Your task to perform on an android device: change your default location settings in chrome Image 0: 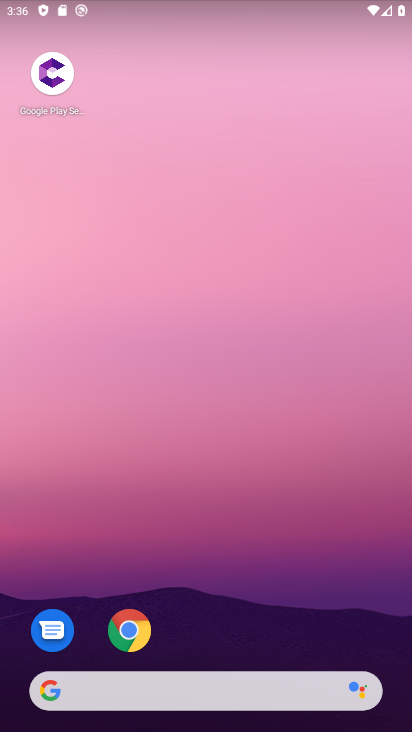
Step 0: drag from (275, 386) to (329, 2)
Your task to perform on an android device: change your default location settings in chrome Image 1: 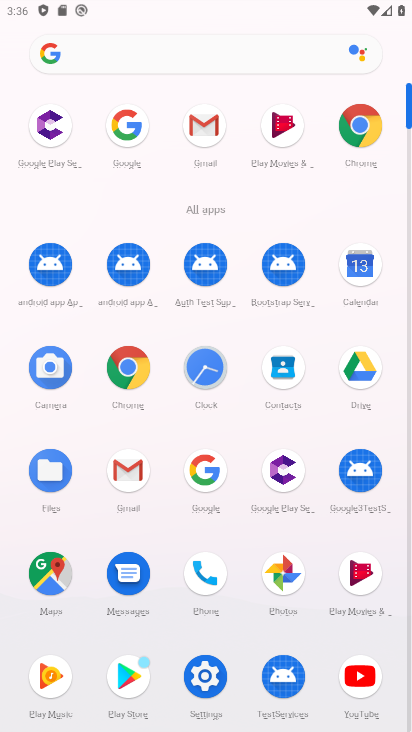
Step 1: click (348, 124)
Your task to perform on an android device: change your default location settings in chrome Image 2: 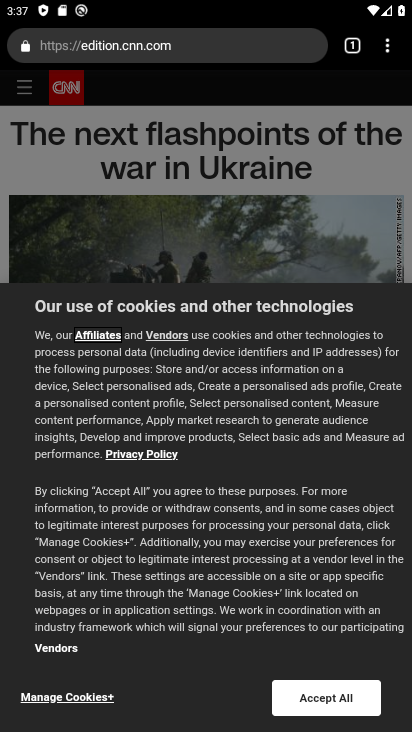
Step 2: drag from (385, 47) to (262, 493)
Your task to perform on an android device: change your default location settings in chrome Image 3: 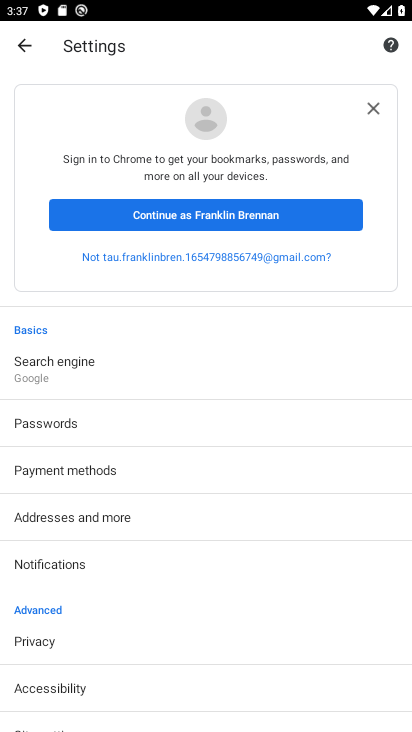
Step 3: drag from (127, 645) to (193, 236)
Your task to perform on an android device: change your default location settings in chrome Image 4: 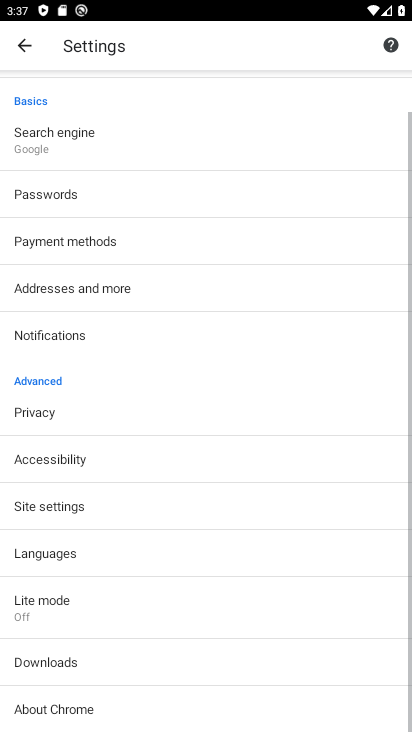
Step 4: click (63, 505)
Your task to perform on an android device: change your default location settings in chrome Image 5: 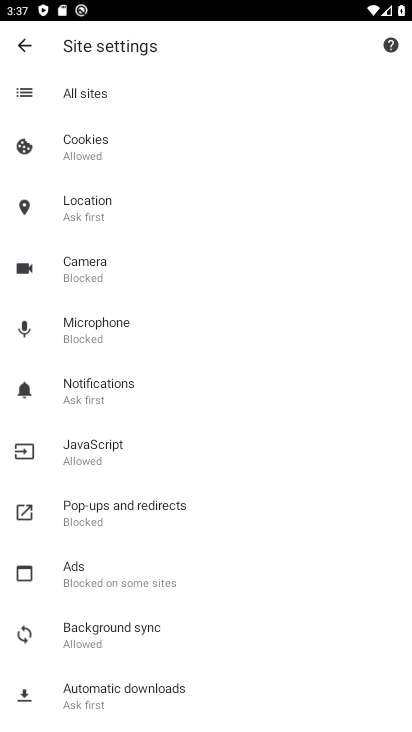
Step 5: drag from (120, 629) to (122, 213)
Your task to perform on an android device: change your default location settings in chrome Image 6: 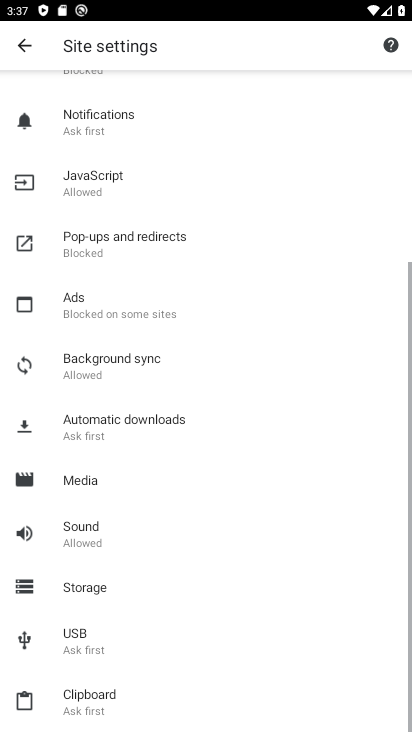
Step 6: drag from (121, 231) to (139, 632)
Your task to perform on an android device: change your default location settings in chrome Image 7: 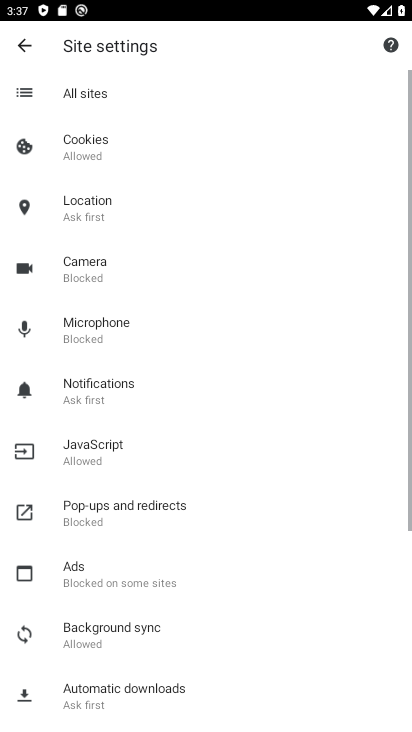
Step 7: click (66, 206)
Your task to perform on an android device: change your default location settings in chrome Image 8: 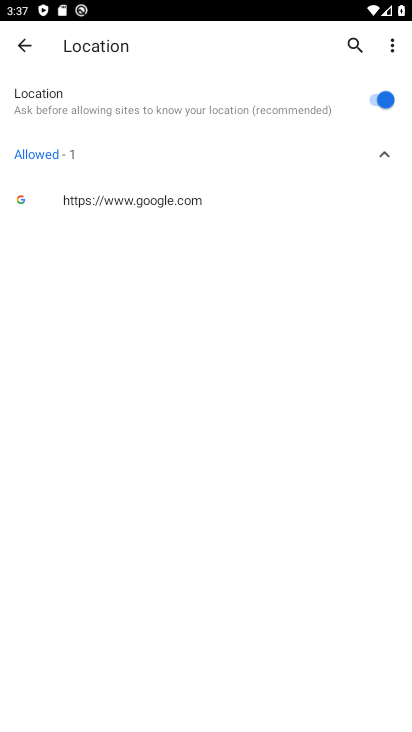
Step 8: click (384, 100)
Your task to perform on an android device: change your default location settings in chrome Image 9: 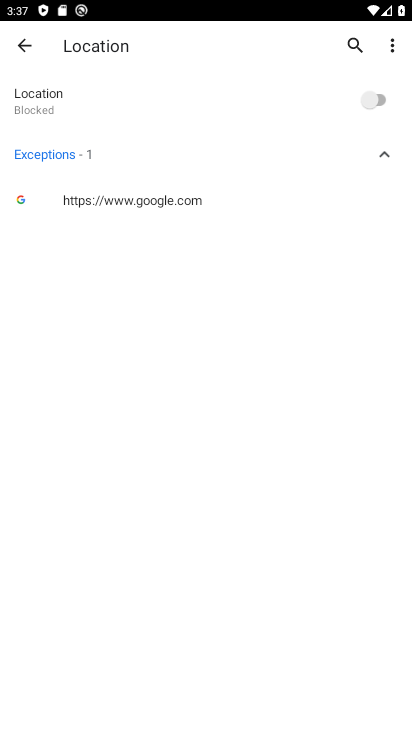
Step 9: task complete